Your task to perform on an android device: Go to Amazon Image 0: 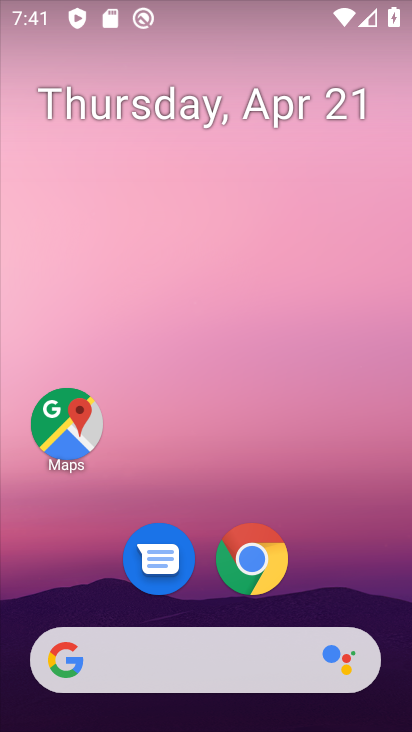
Step 0: drag from (349, 625) to (195, 13)
Your task to perform on an android device: Go to Amazon Image 1: 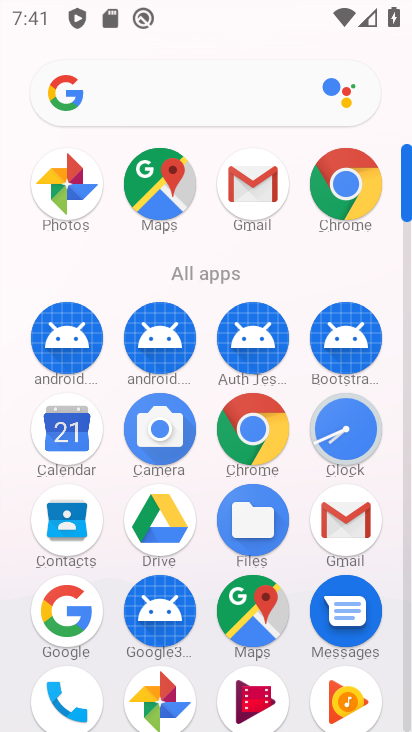
Step 1: click (242, 435)
Your task to perform on an android device: Go to Amazon Image 2: 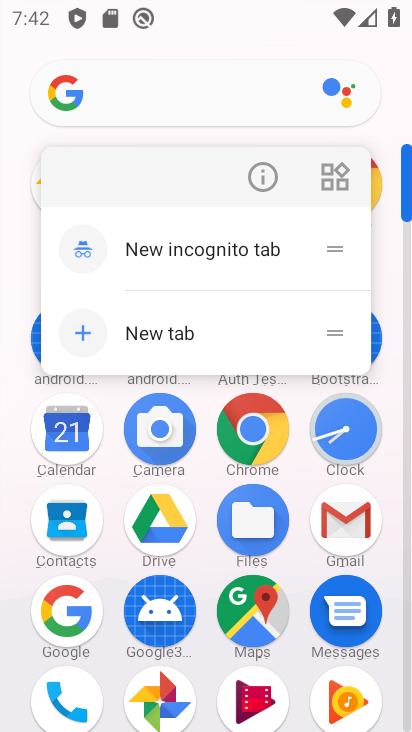
Step 2: click (253, 425)
Your task to perform on an android device: Go to Amazon Image 3: 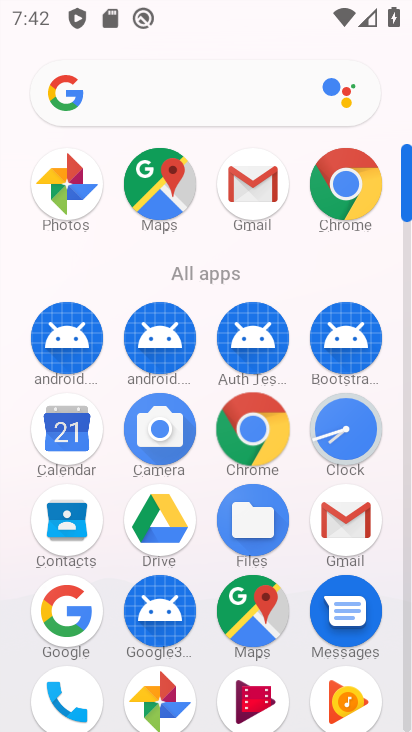
Step 3: click (257, 422)
Your task to perform on an android device: Go to Amazon Image 4: 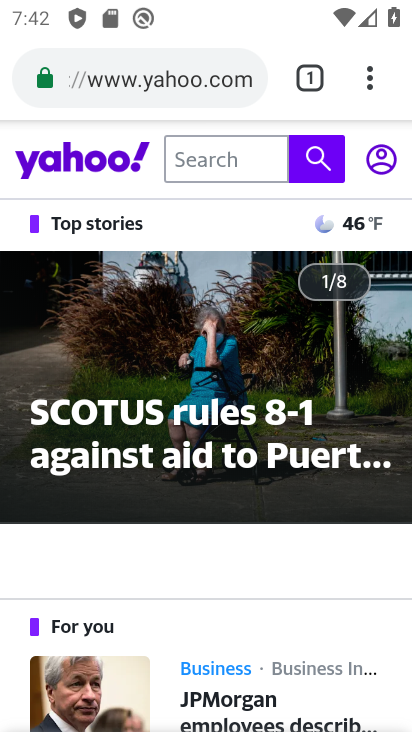
Step 4: press home button
Your task to perform on an android device: Go to Amazon Image 5: 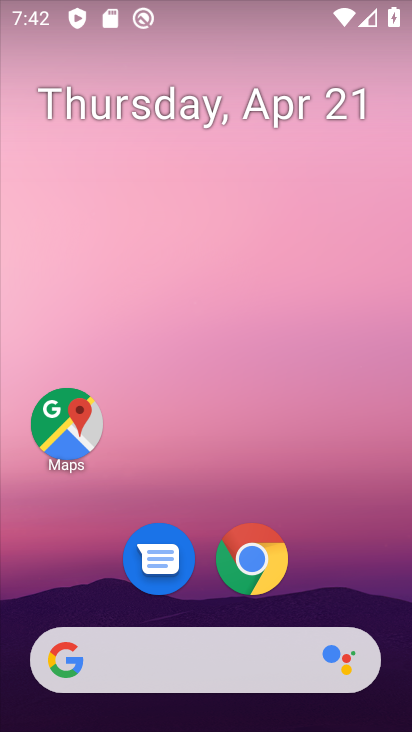
Step 5: drag from (186, 487) to (110, 7)
Your task to perform on an android device: Go to Amazon Image 6: 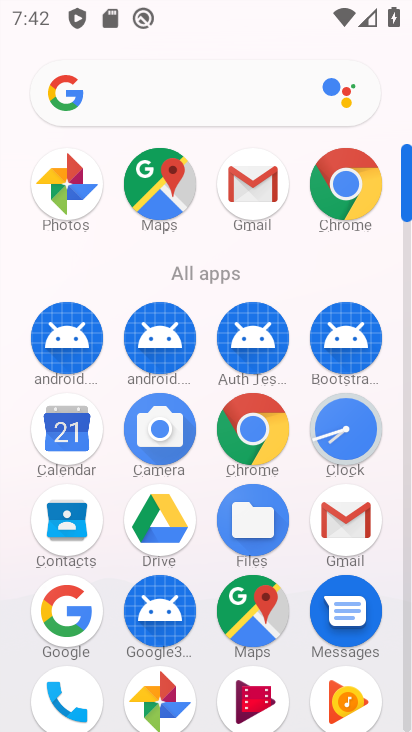
Step 6: click (247, 436)
Your task to perform on an android device: Go to Amazon Image 7: 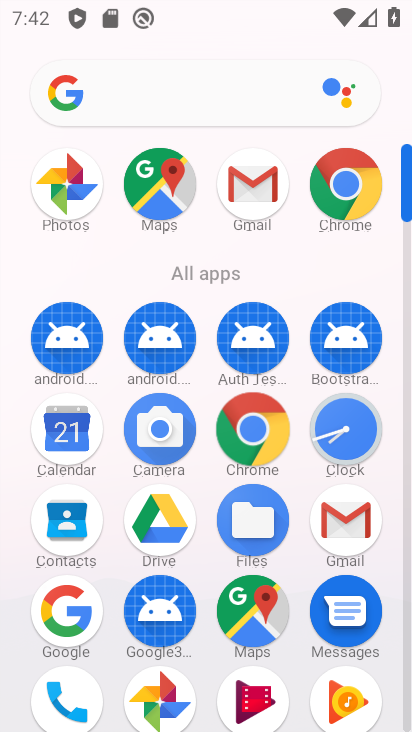
Step 7: click (251, 422)
Your task to perform on an android device: Go to Amazon Image 8: 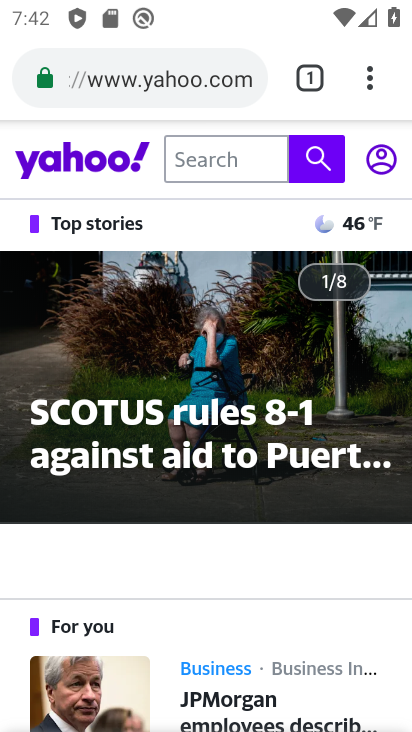
Step 8: click (372, 77)
Your task to perform on an android device: Go to Amazon Image 9: 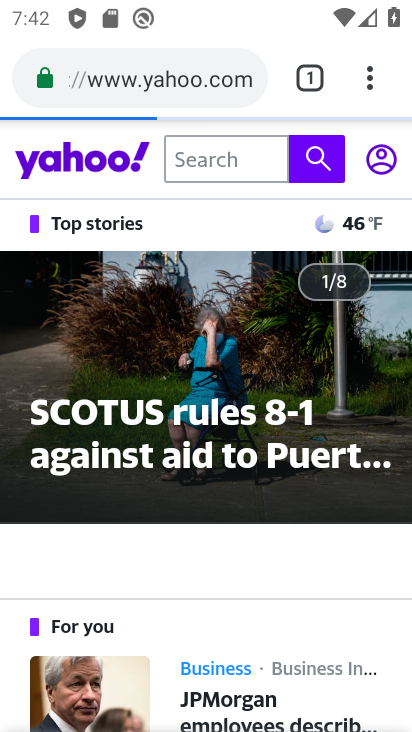
Step 9: drag from (365, 71) to (92, 148)
Your task to perform on an android device: Go to Amazon Image 10: 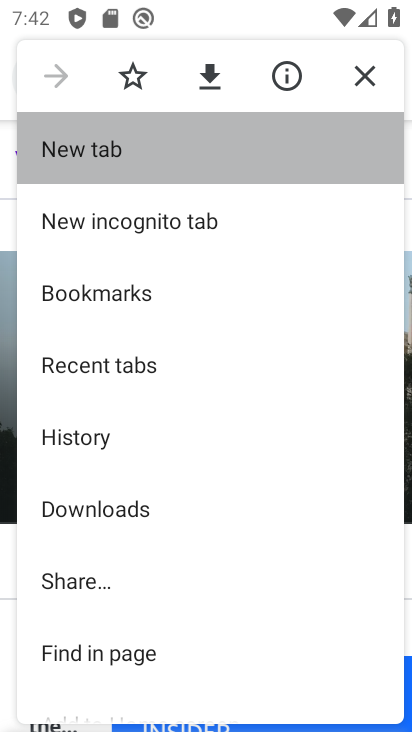
Step 10: click (92, 148)
Your task to perform on an android device: Go to Amazon Image 11: 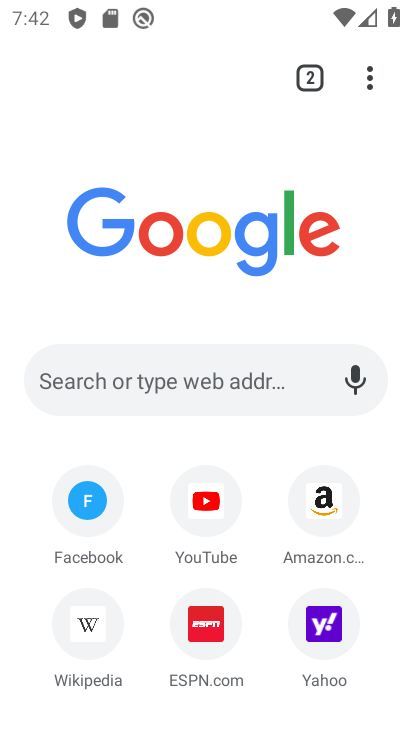
Step 11: click (331, 488)
Your task to perform on an android device: Go to Amazon Image 12: 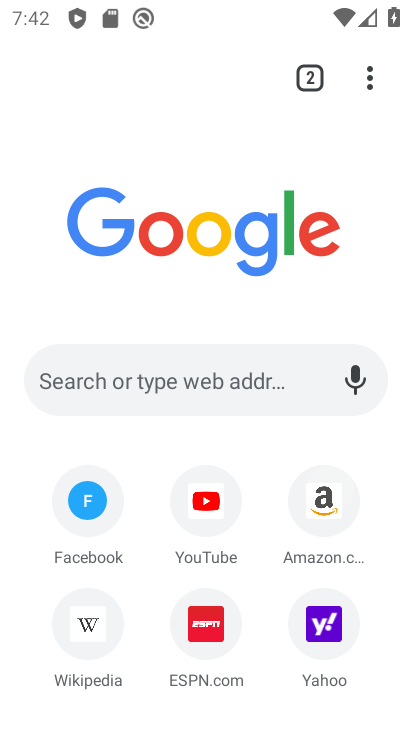
Step 12: click (331, 488)
Your task to perform on an android device: Go to Amazon Image 13: 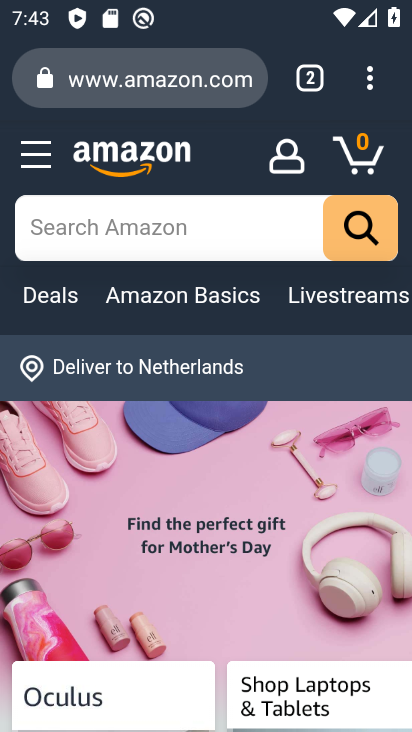
Step 13: task complete